Your task to perform on an android device: Check the news Image 0: 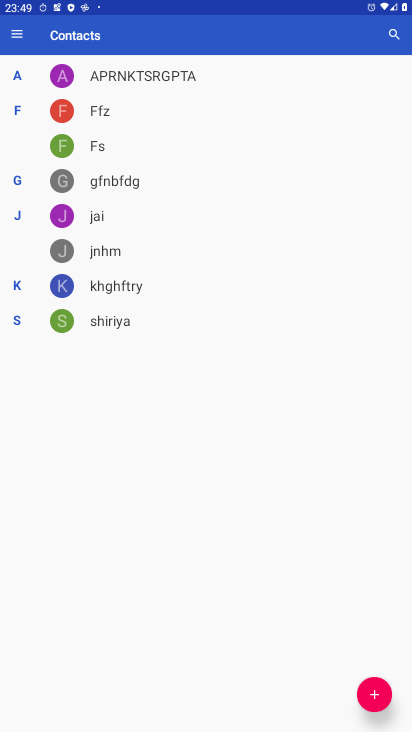
Step 0: press home button
Your task to perform on an android device: Check the news Image 1: 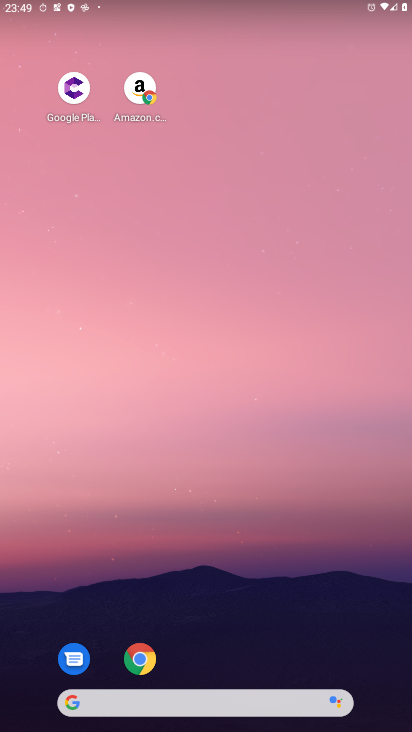
Step 1: click (151, 658)
Your task to perform on an android device: Check the news Image 2: 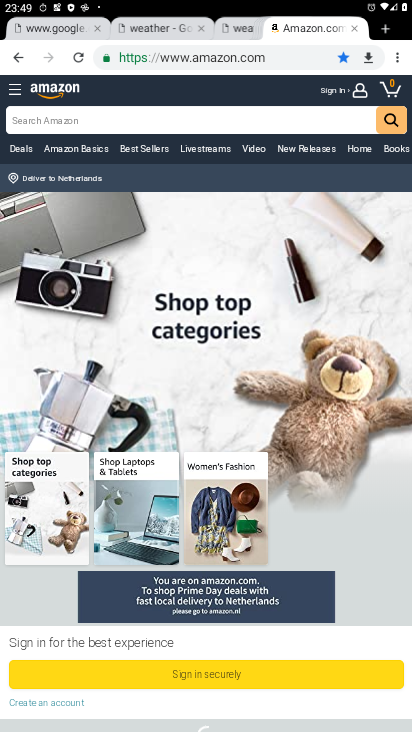
Step 2: click (385, 30)
Your task to perform on an android device: Check the news Image 3: 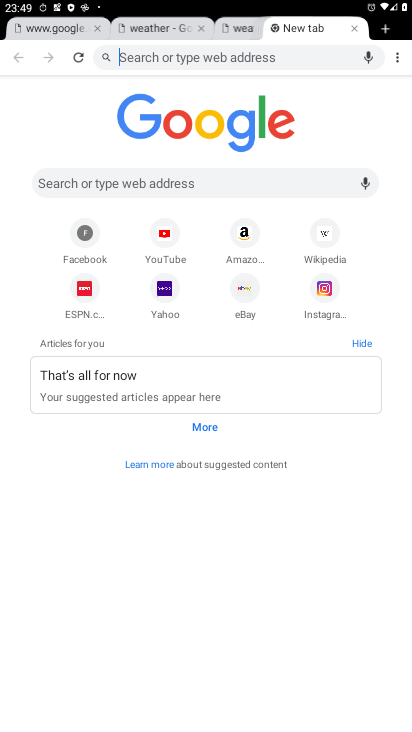
Step 3: click (176, 185)
Your task to perform on an android device: Check the news Image 4: 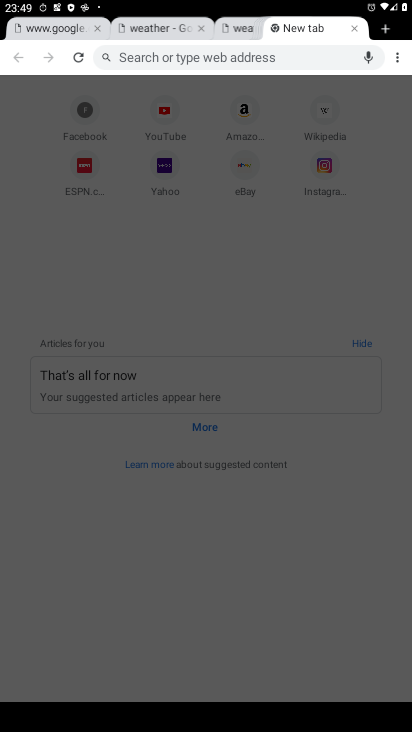
Step 4: type "news"
Your task to perform on an android device: Check the news Image 5: 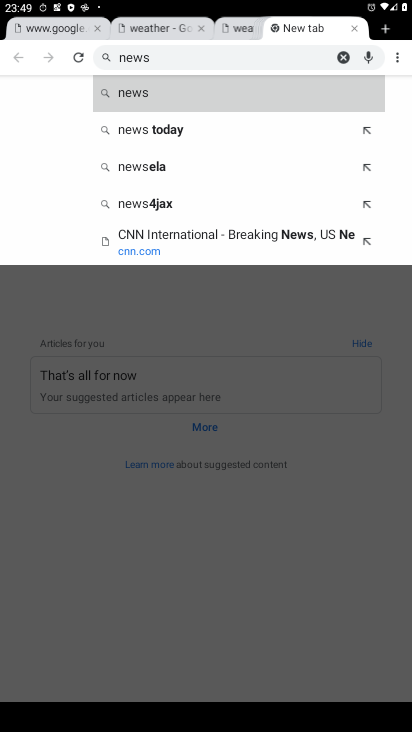
Step 5: click (113, 84)
Your task to perform on an android device: Check the news Image 6: 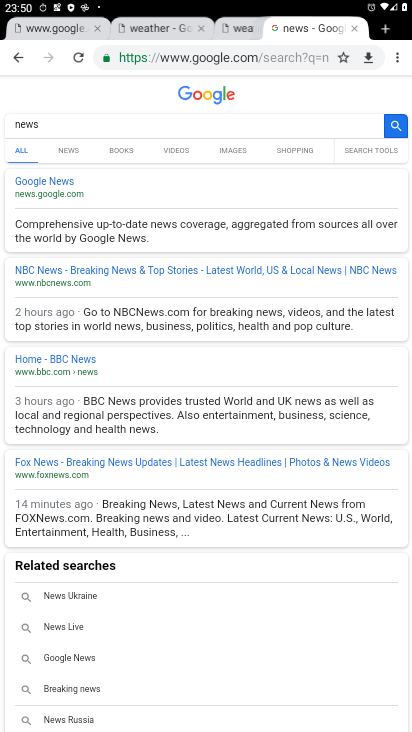
Step 6: task complete